Your task to perform on an android device: Search for Italian restaurants on Maps Image 0: 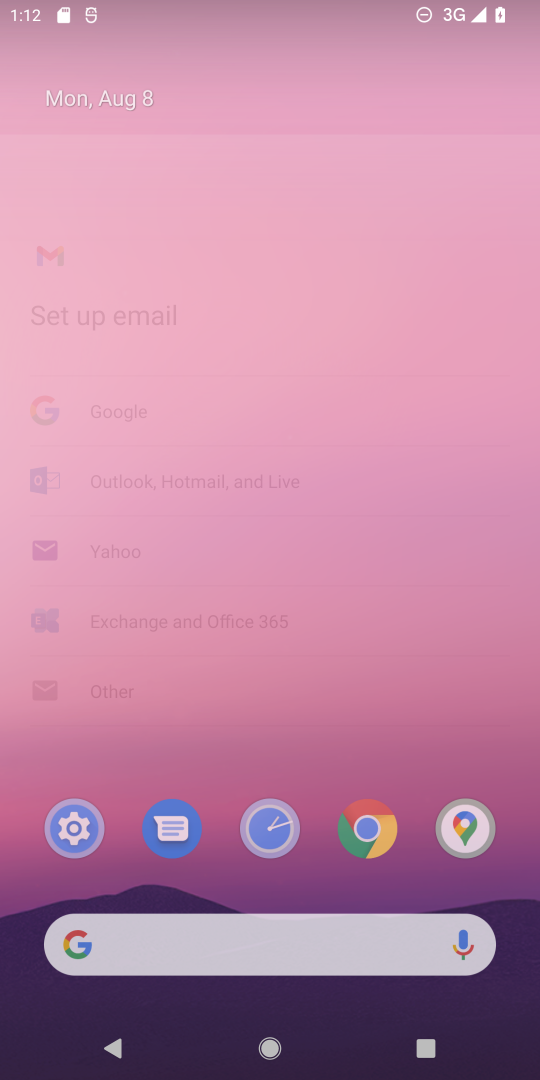
Step 0: press home button
Your task to perform on an android device: Search for Italian restaurants on Maps Image 1: 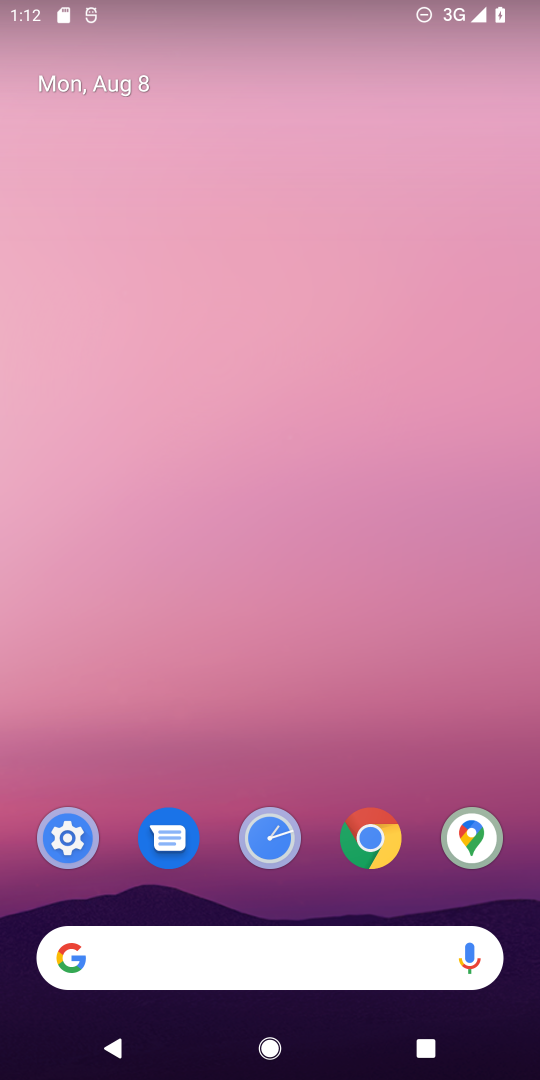
Step 1: click (475, 836)
Your task to perform on an android device: Search for Italian restaurants on Maps Image 2: 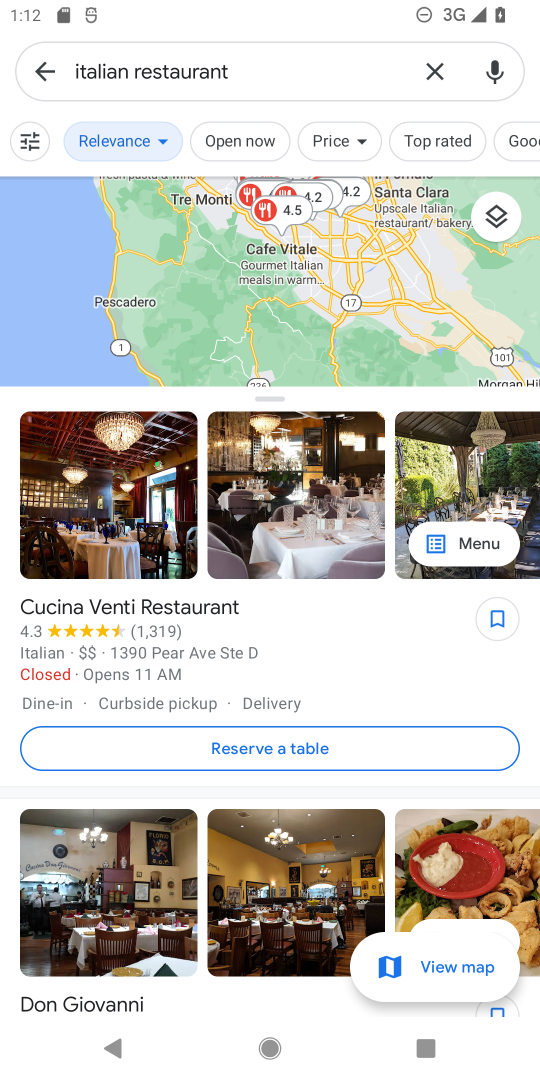
Step 2: click (38, 70)
Your task to perform on an android device: Search for Italian restaurants on Maps Image 3: 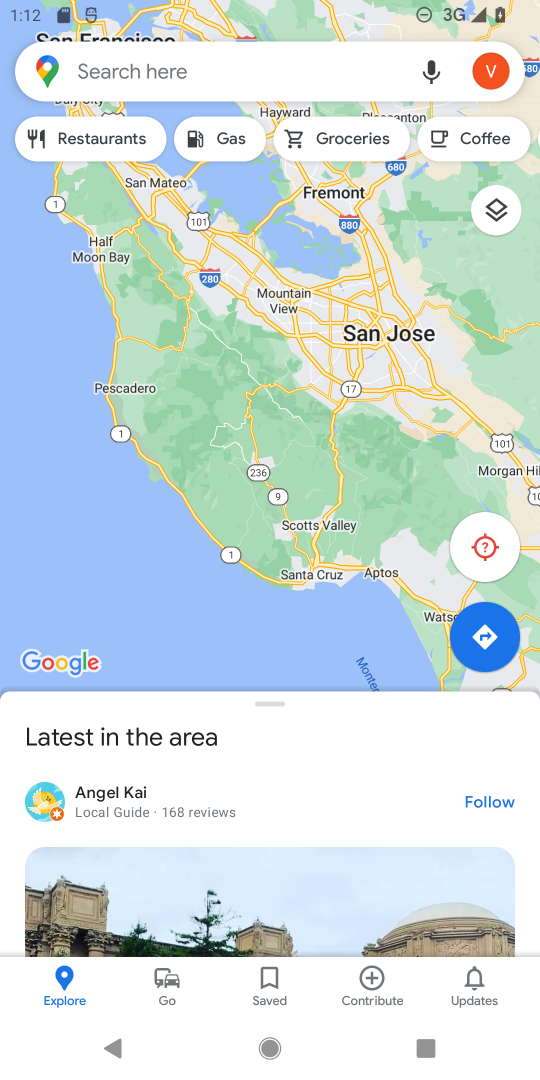
Step 3: click (170, 60)
Your task to perform on an android device: Search for Italian restaurants on Maps Image 4: 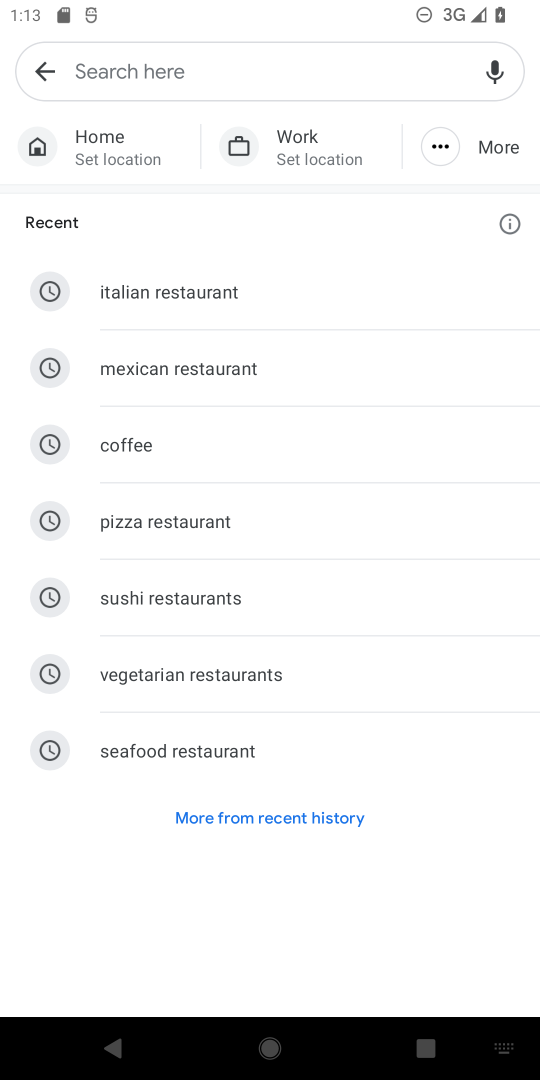
Step 4: click (158, 293)
Your task to perform on an android device: Search for Italian restaurants on Maps Image 5: 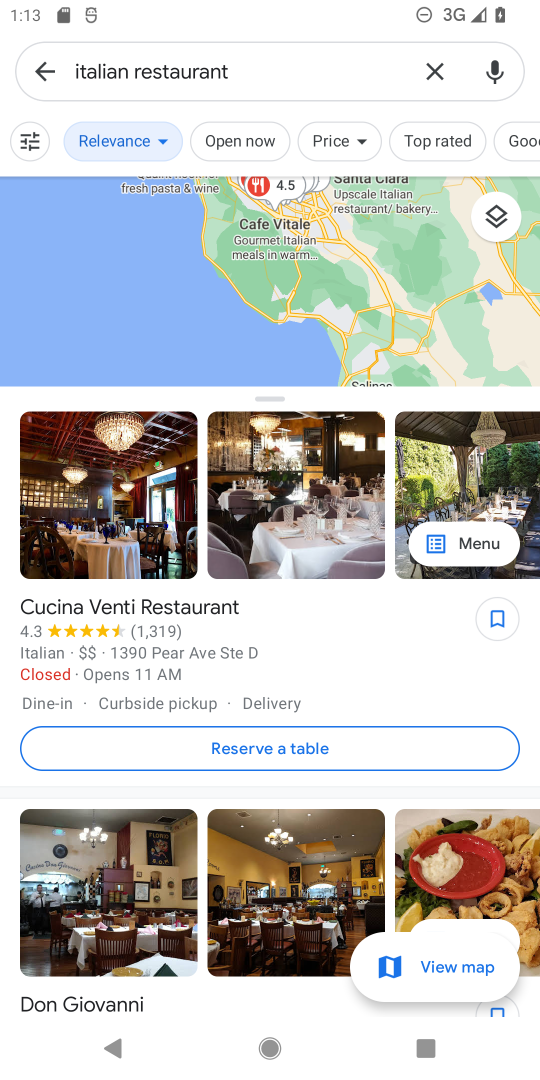
Step 5: task complete